Your task to perform on an android device: open chrome privacy settings Image 0: 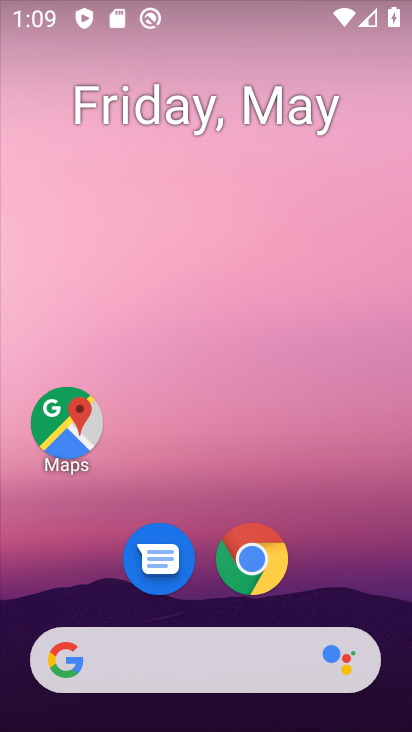
Step 0: click (272, 198)
Your task to perform on an android device: open chrome privacy settings Image 1: 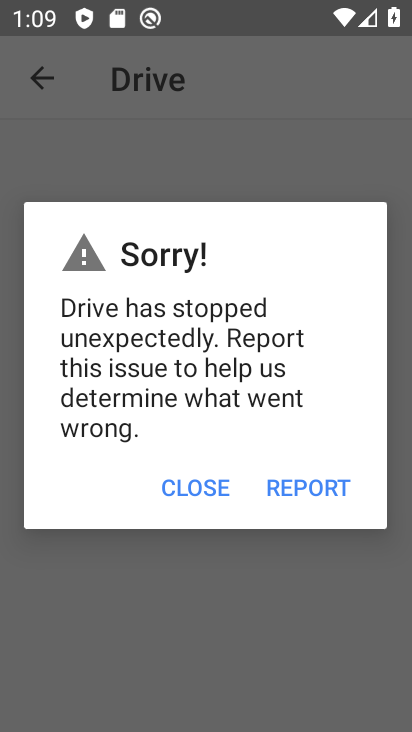
Step 1: press home button
Your task to perform on an android device: open chrome privacy settings Image 2: 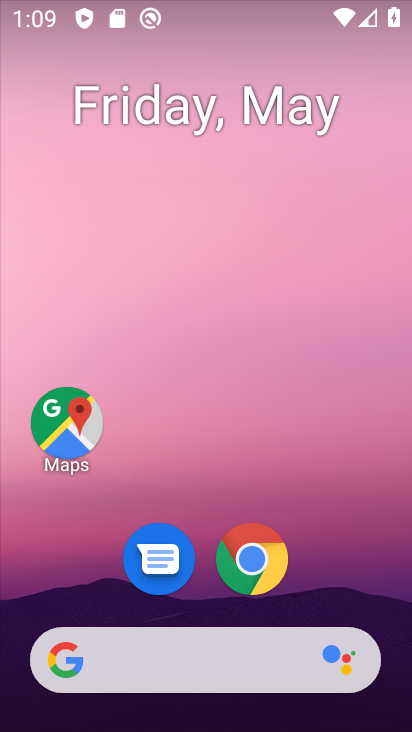
Step 2: drag from (363, 581) to (344, 149)
Your task to perform on an android device: open chrome privacy settings Image 3: 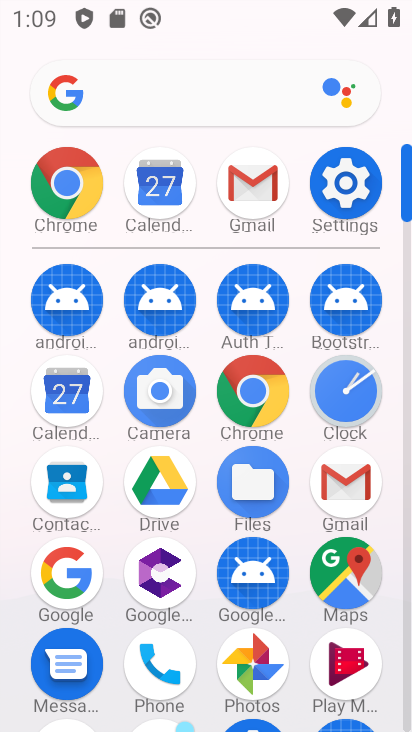
Step 3: click (275, 392)
Your task to perform on an android device: open chrome privacy settings Image 4: 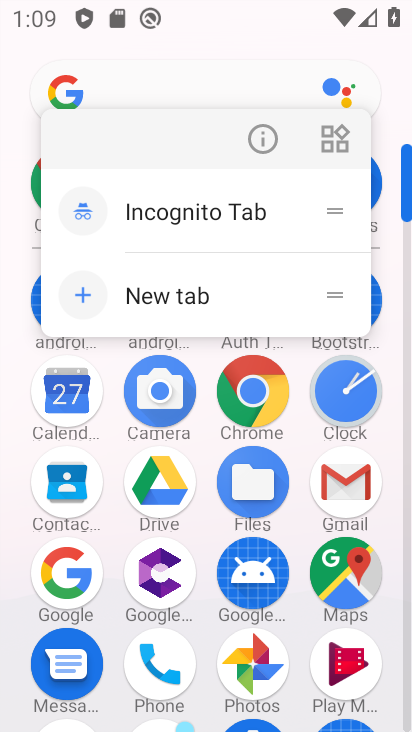
Step 4: click (275, 390)
Your task to perform on an android device: open chrome privacy settings Image 5: 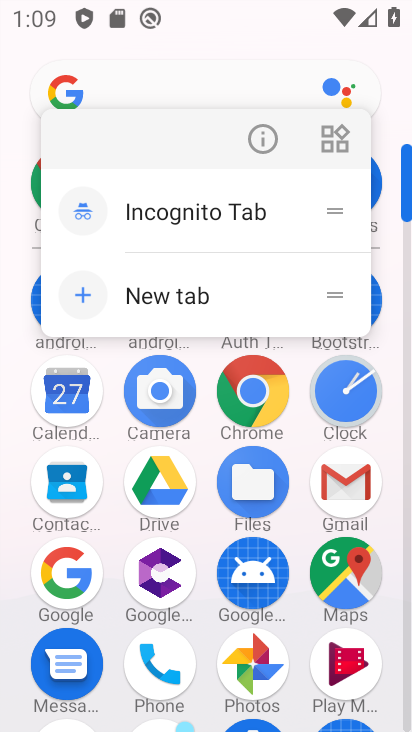
Step 5: click (270, 413)
Your task to perform on an android device: open chrome privacy settings Image 6: 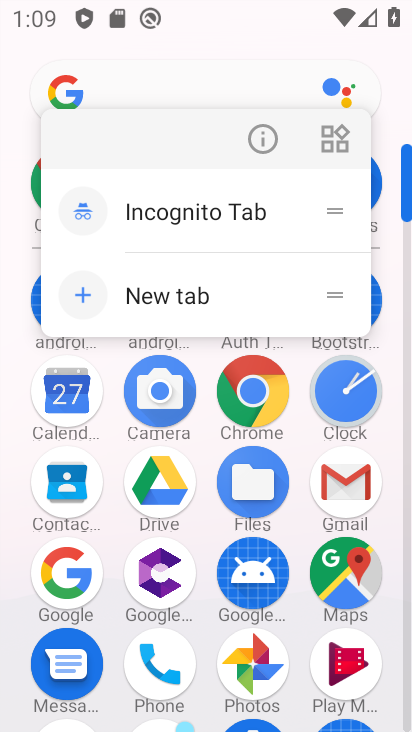
Step 6: click (262, 417)
Your task to perform on an android device: open chrome privacy settings Image 7: 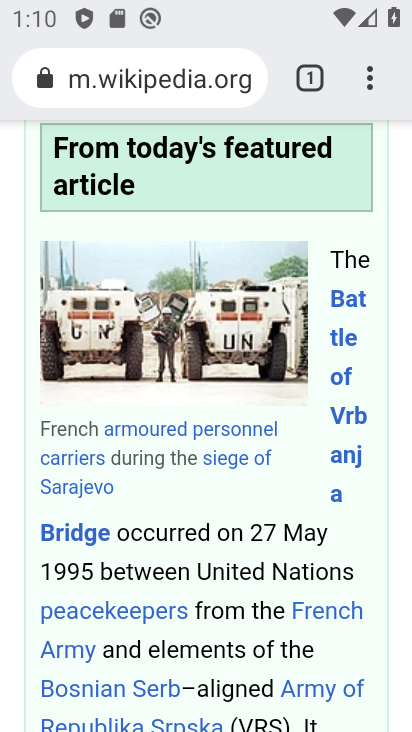
Step 7: drag from (366, 83) to (150, 618)
Your task to perform on an android device: open chrome privacy settings Image 8: 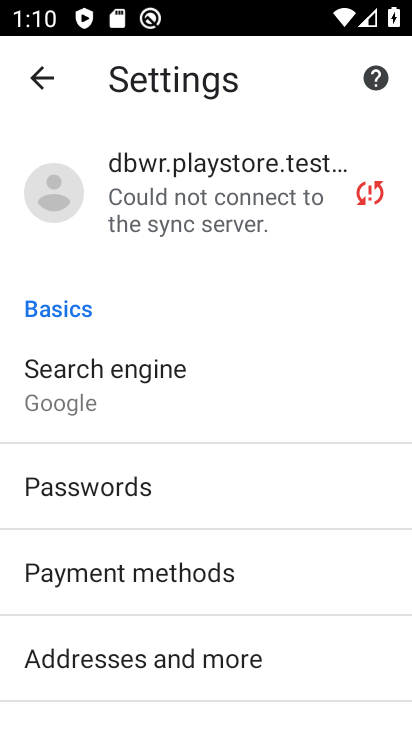
Step 8: drag from (278, 673) to (279, 354)
Your task to perform on an android device: open chrome privacy settings Image 9: 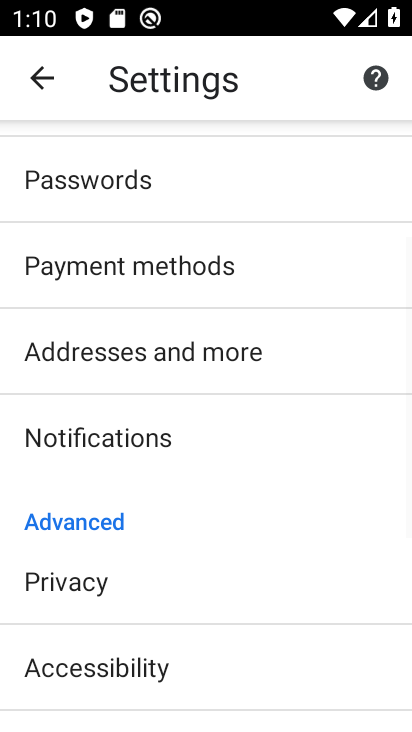
Step 9: drag from (247, 637) to (251, 324)
Your task to perform on an android device: open chrome privacy settings Image 10: 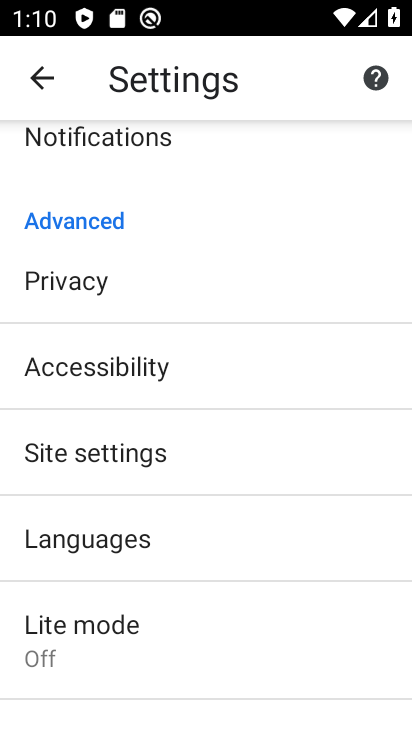
Step 10: drag from (250, 583) to (261, 294)
Your task to perform on an android device: open chrome privacy settings Image 11: 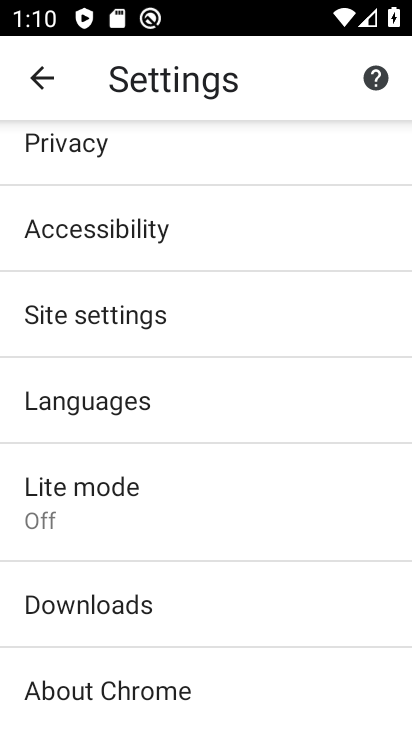
Step 11: drag from (222, 235) to (227, 480)
Your task to perform on an android device: open chrome privacy settings Image 12: 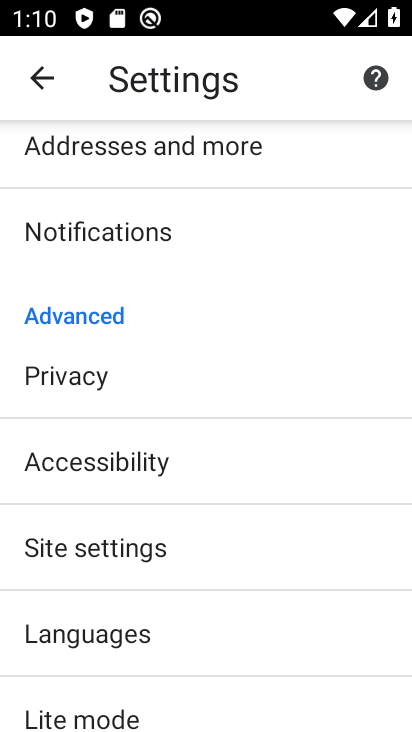
Step 12: click (152, 387)
Your task to perform on an android device: open chrome privacy settings Image 13: 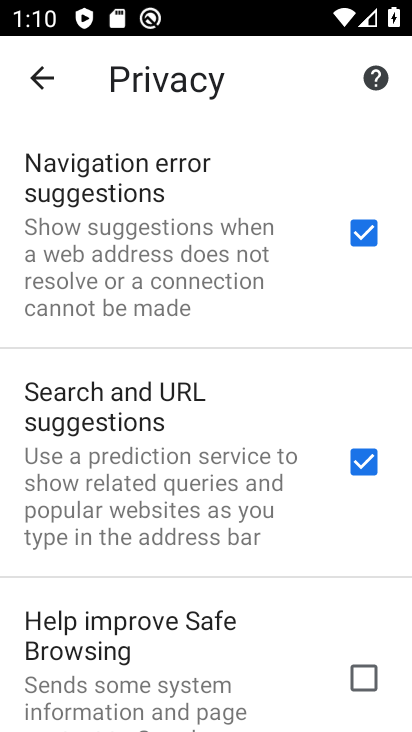
Step 13: task complete